Your task to perform on an android device: Open the map Image 0: 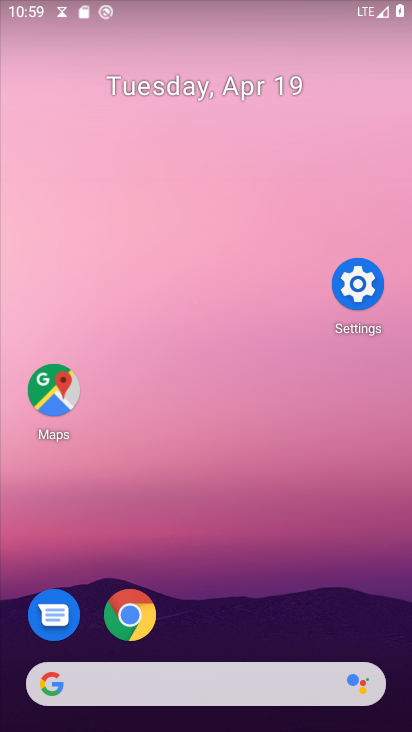
Step 0: click (287, 170)
Your task to perform on an android device: Open the map Image 1: 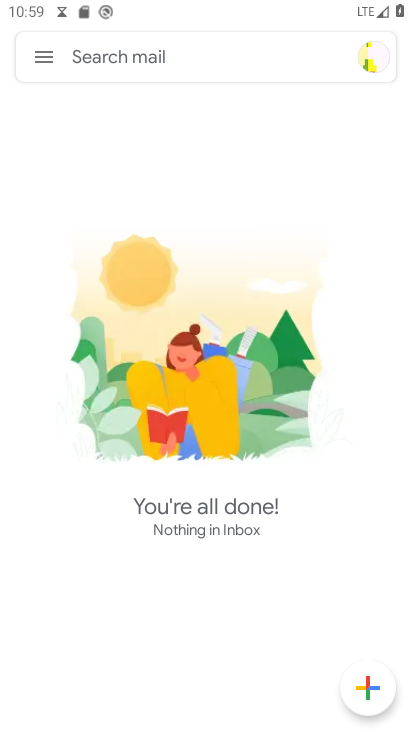
Step 1: press home button
Your task to perform on an android device: Open the map Image 2: 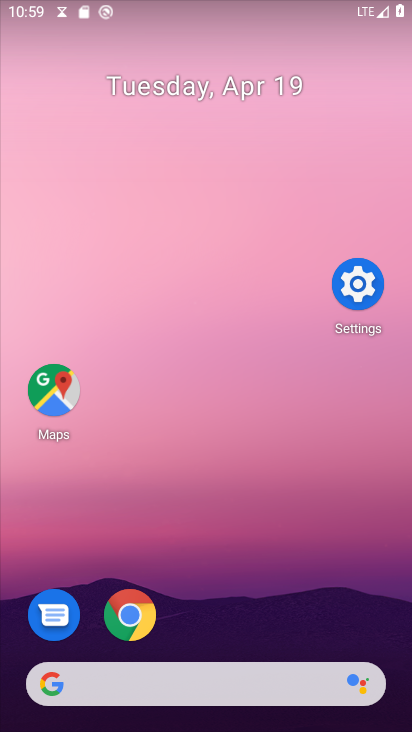
Step 2: drag from (219, 661) to (373, 107)
Your task to perform on an android device: Open the map Image 3: 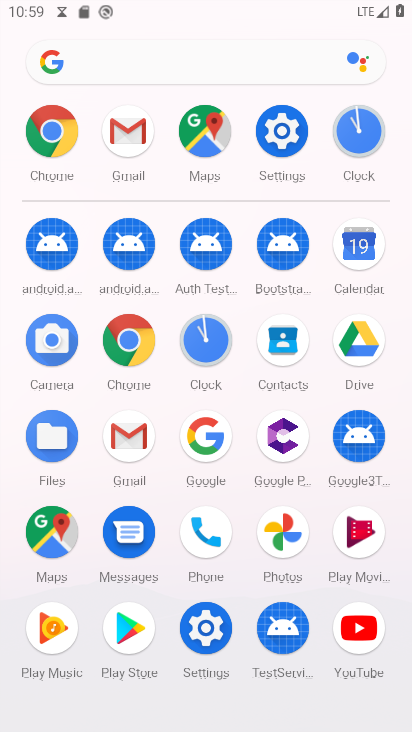
Step 3: click (48, 528)
Your task to perform on an android device: Open the map Image 4: 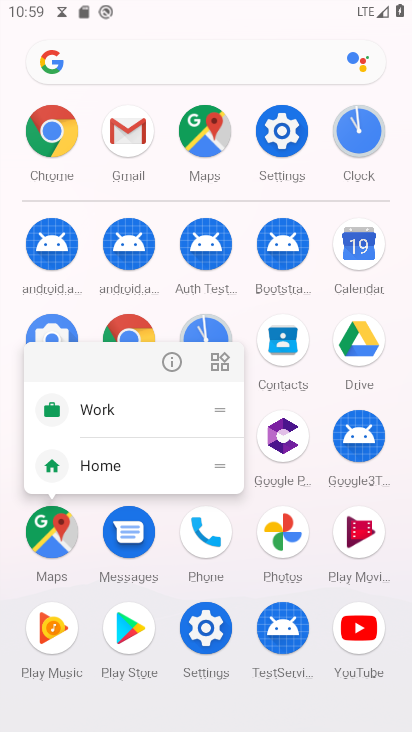
Step 4: click (176, 361)
Your task to perform on an android device: Open the map Image 5: 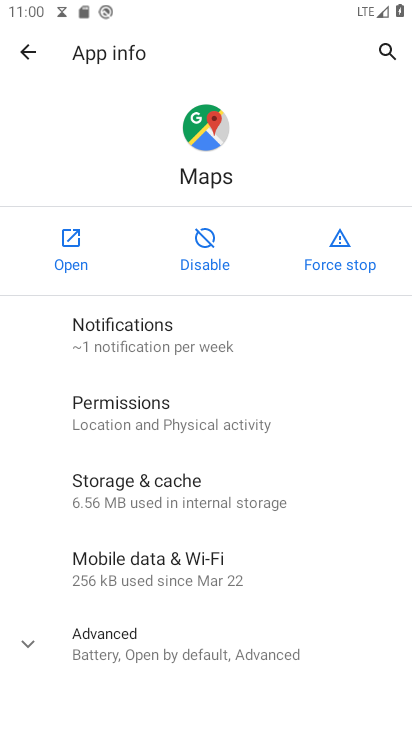
Step 5: click (69, 238)
Your task to perform on an android device: Open the map Image 6: 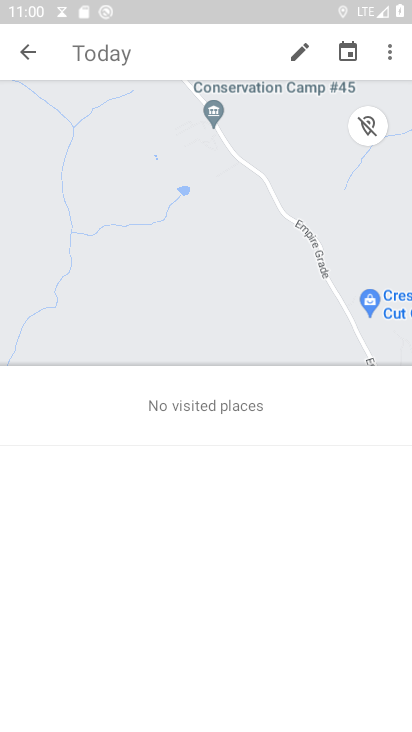
Step 6: task complete